Your task to perform on an android device: open app "Google Sheets" (install if not already installed) Image 0: 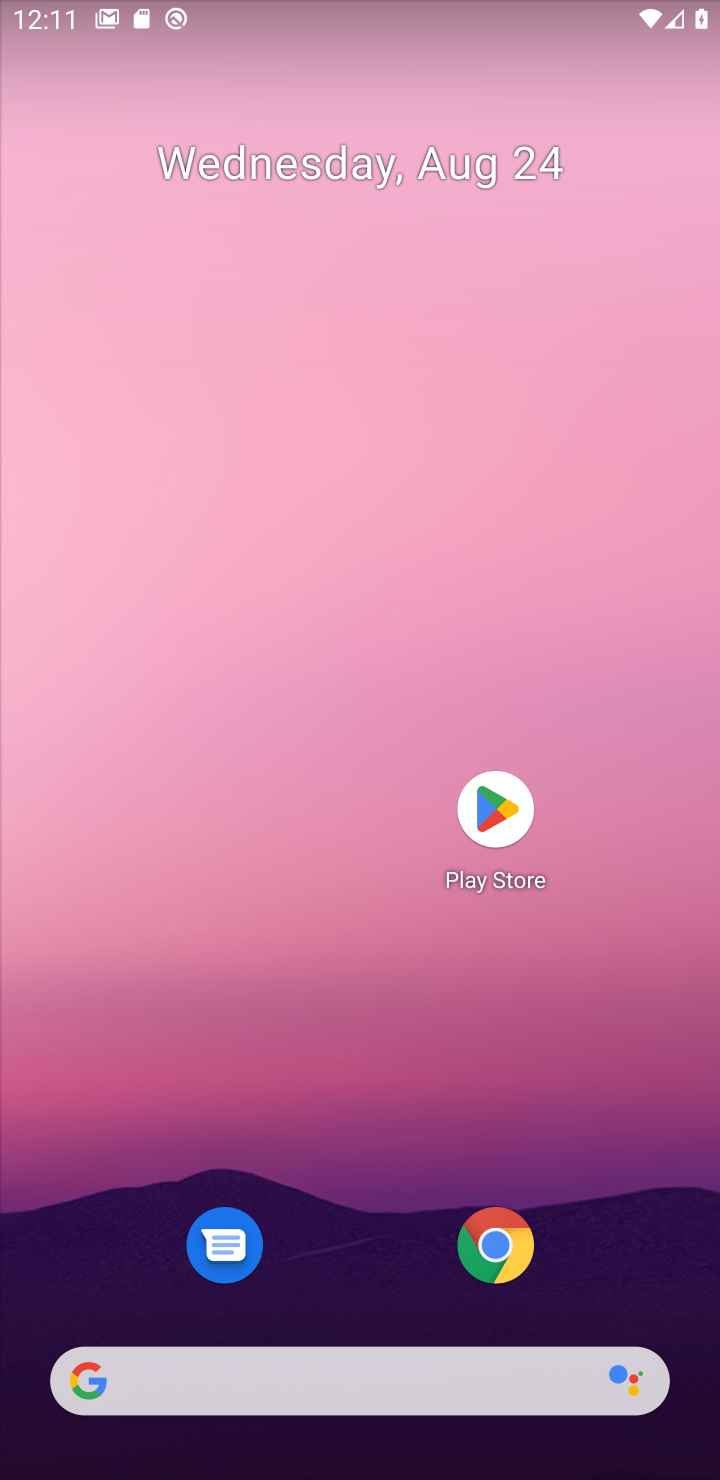
Step 0: click (496, 813)
Your task to perform on an android device: open app "Google Sheets" (install if not already installed) Image 1: 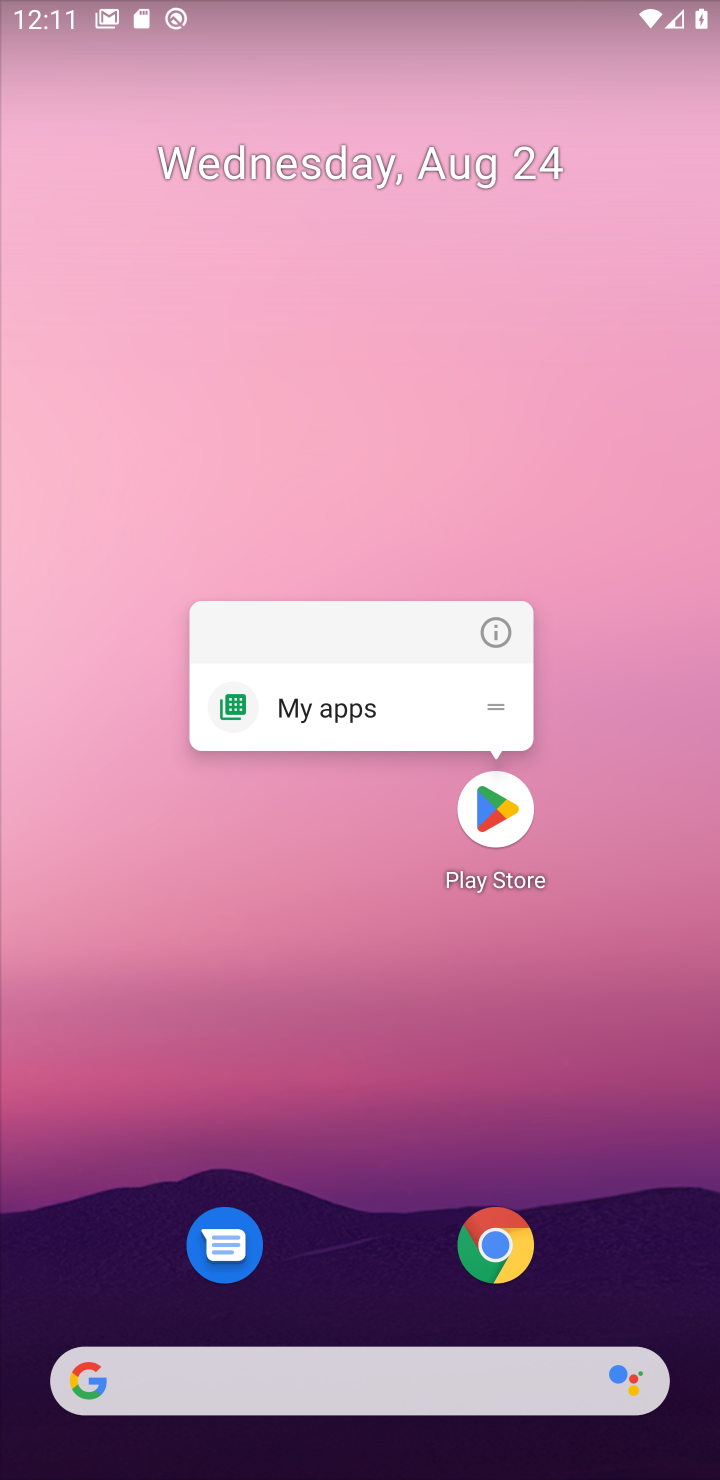
Step 1: click (500, 817)
Your task to perform on an android device: open app "Google Sheets" (install if not already installed) Image 2: 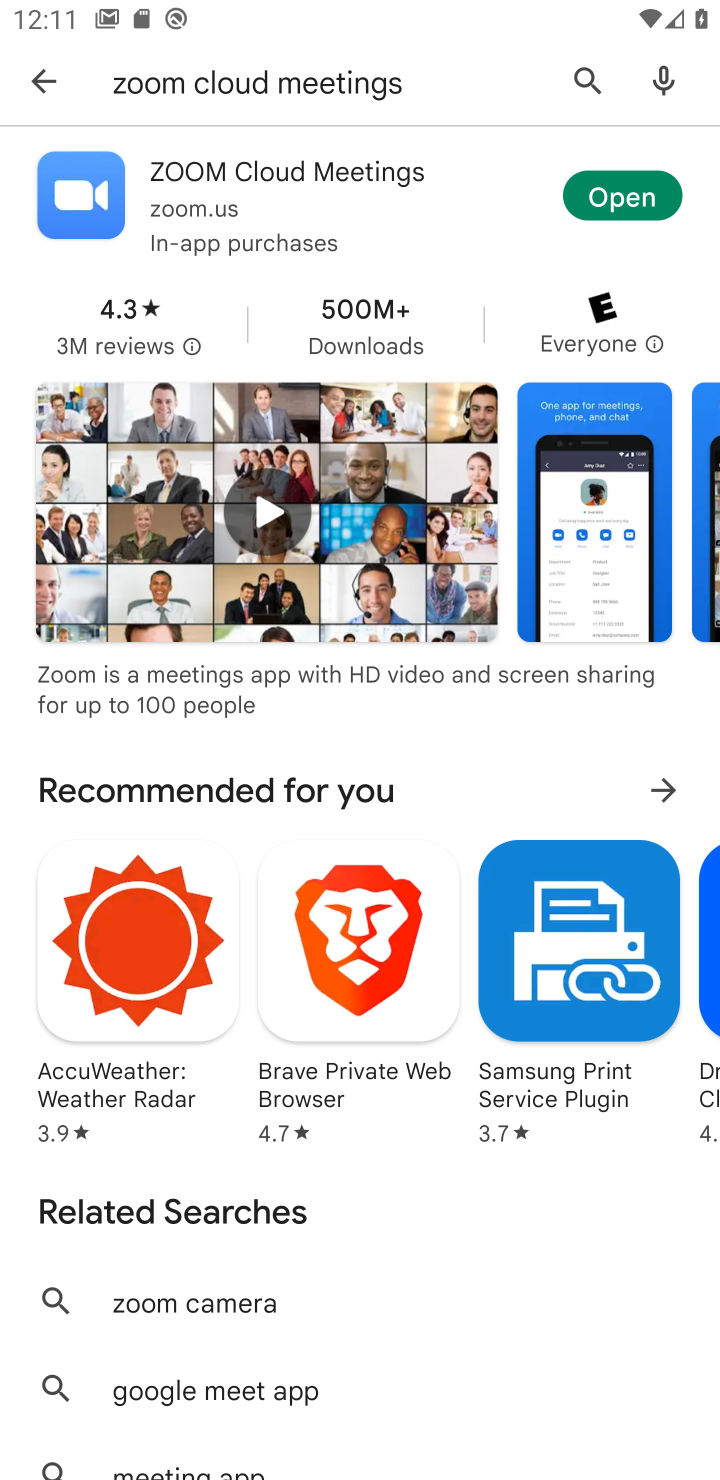
Step 2: click (580, 78)
Your task to perform on an android device: open app "Google Sheets" (install if not already installed) Image 3: 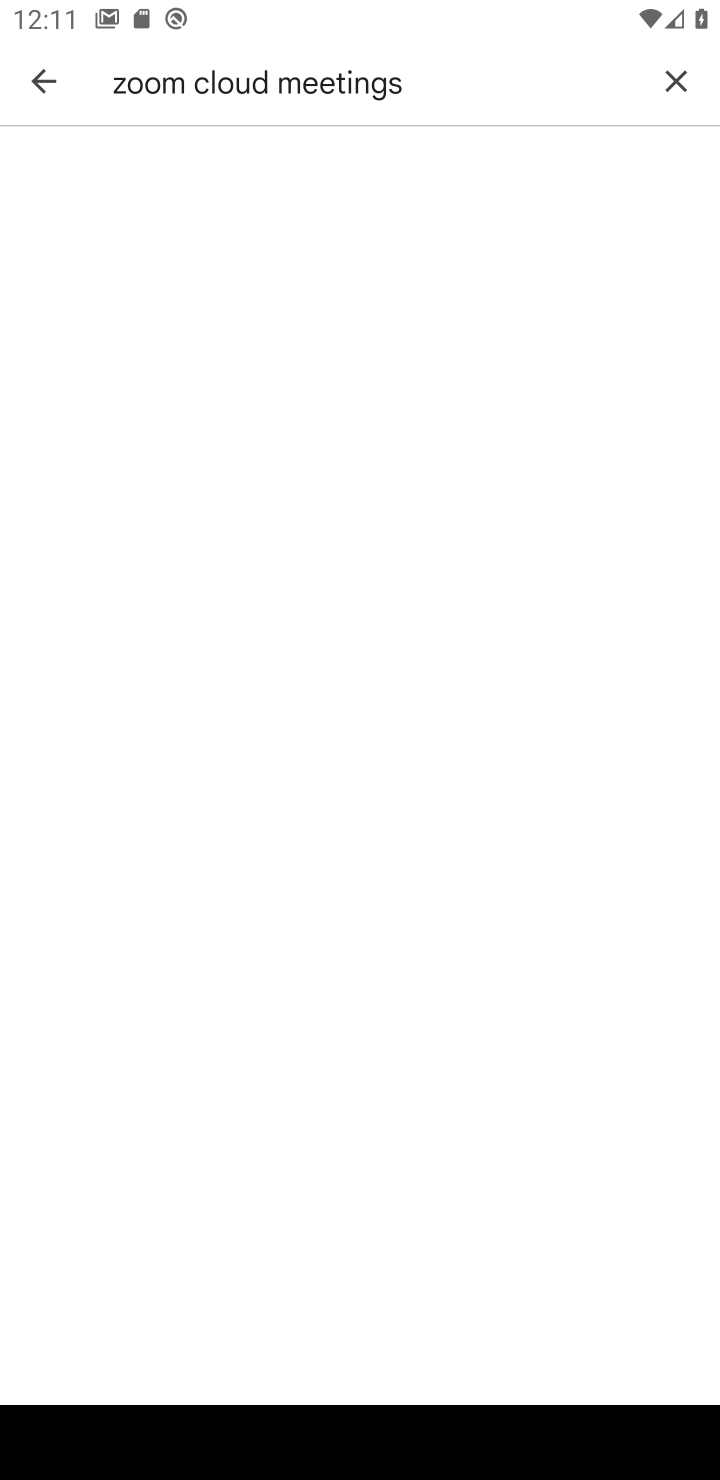
Step 3: click (666, 86)
Your task to perform on an android device: open app "Google Sheets" (install if not already installed) Image 4: 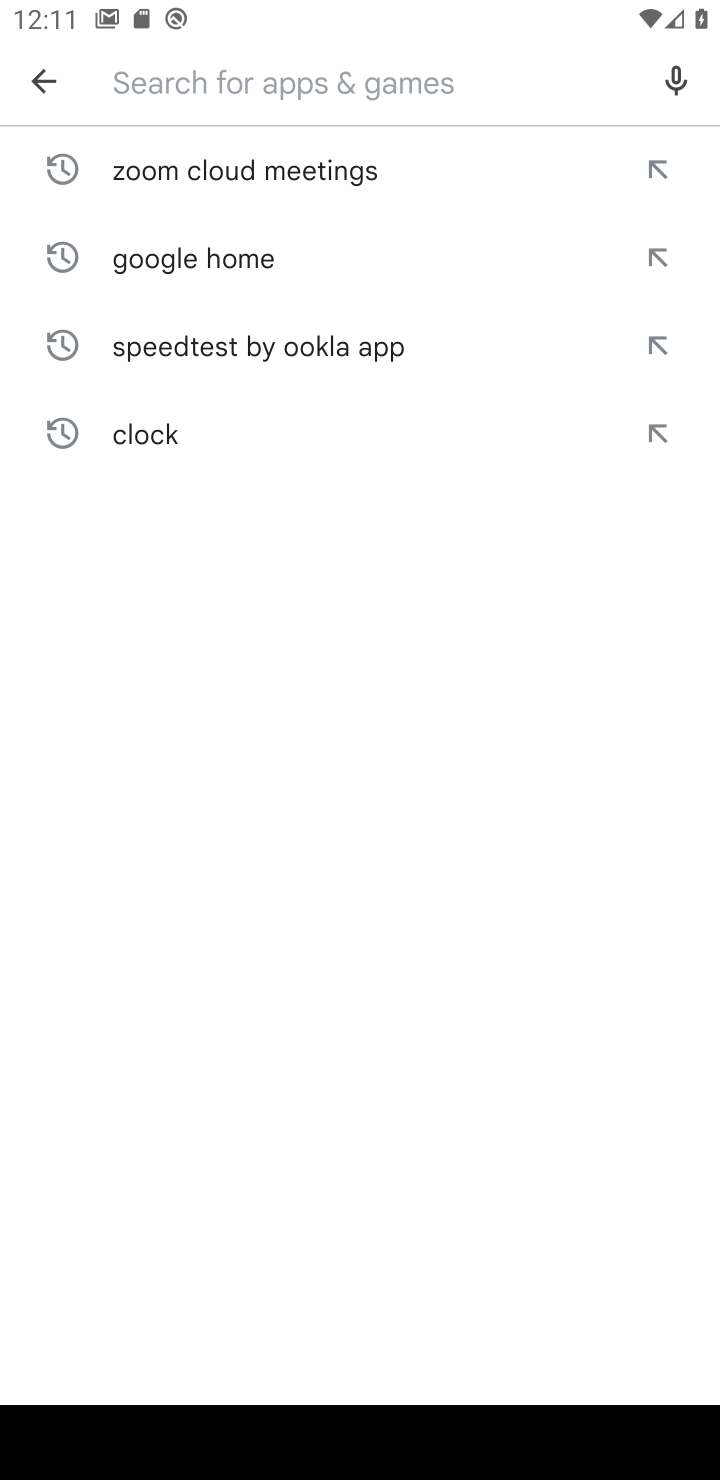
Step 4: type "Google Sheets"
Your task to perform on an android device: open app "Google Sheets" (install if not already installed) Image 5: 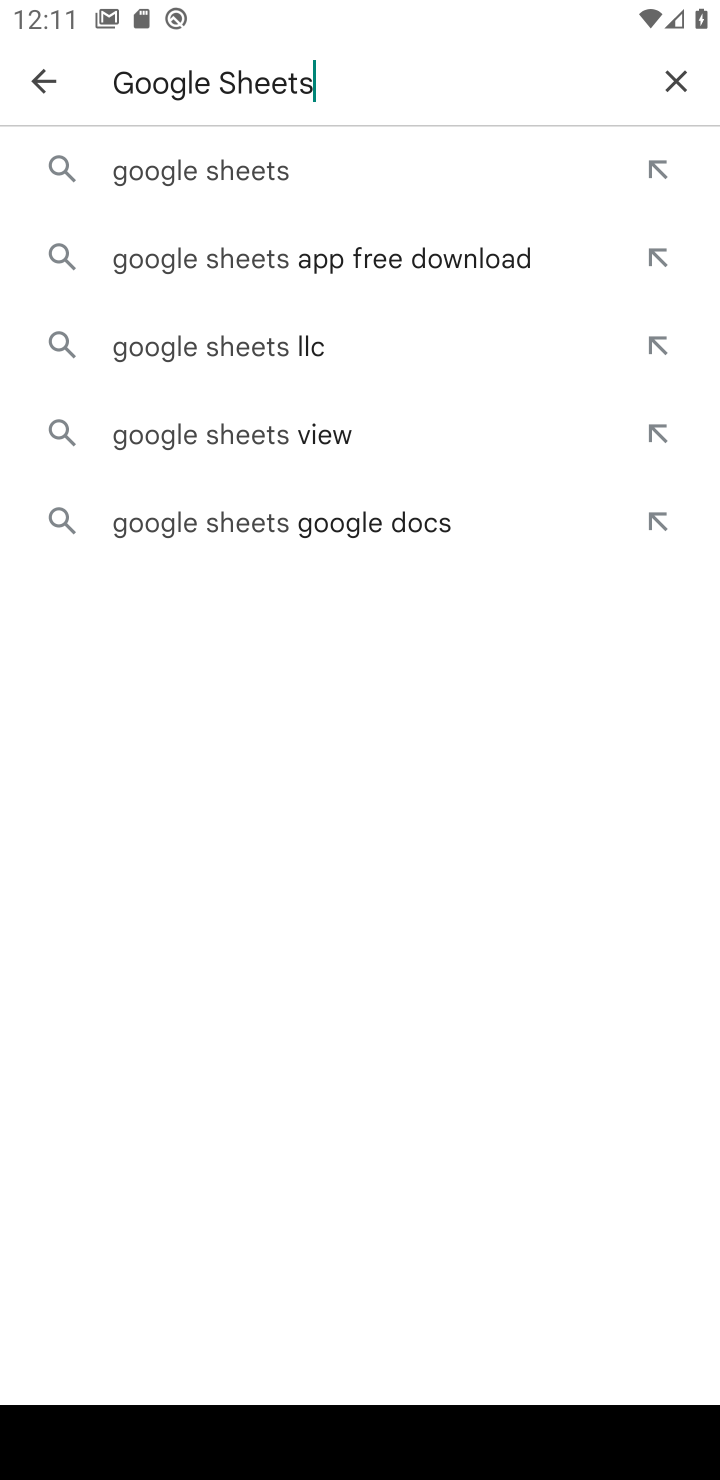
Step 5: click (220, 179)
Your task to perform on an android device: open app "Google Sheets" (install if not already installed) Image 6: 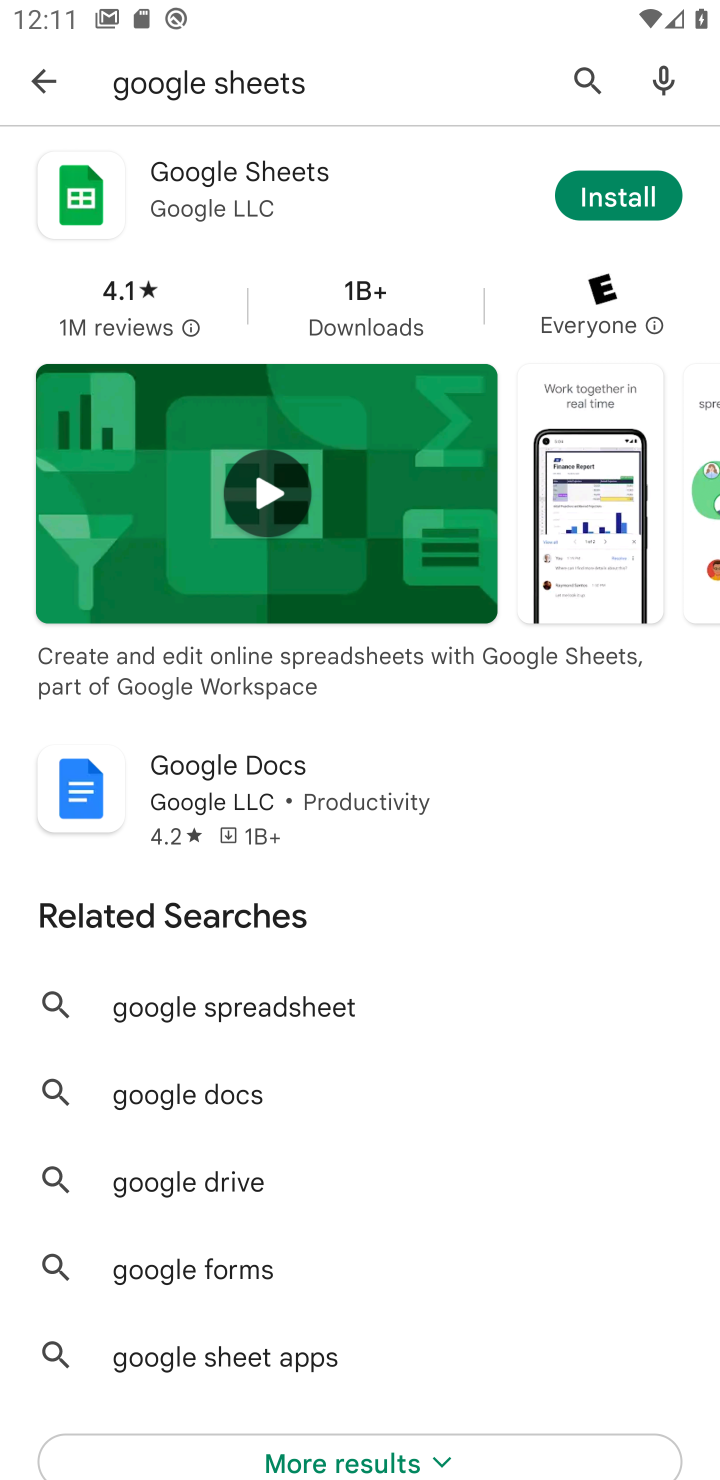
Step 6: click (647, 200)
Your task to perform on an android device: open app "Google Sheets" (install if not already installed) Image 7: 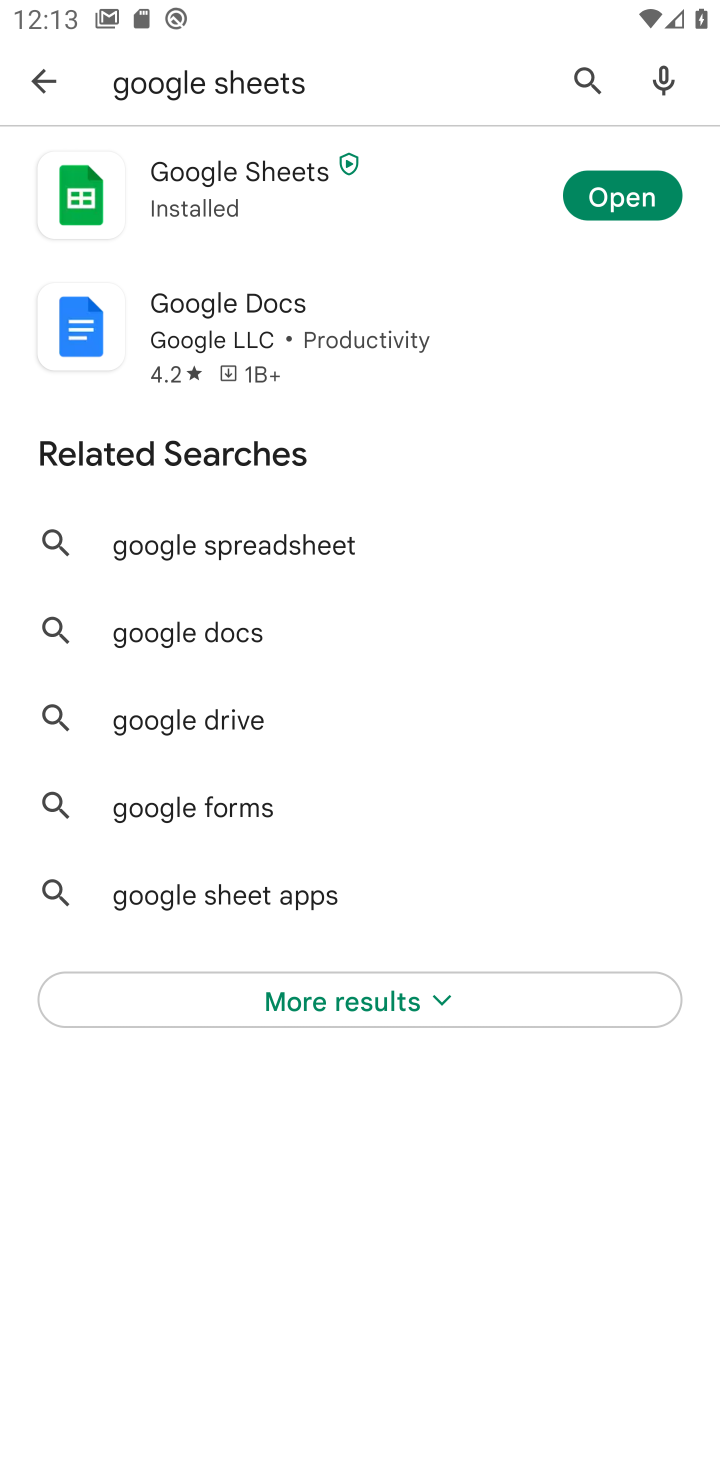
Step 7: click (639, 191)
Your task to perform on an android device: open app "Google Sheets" (install if not already installed) Image 8: 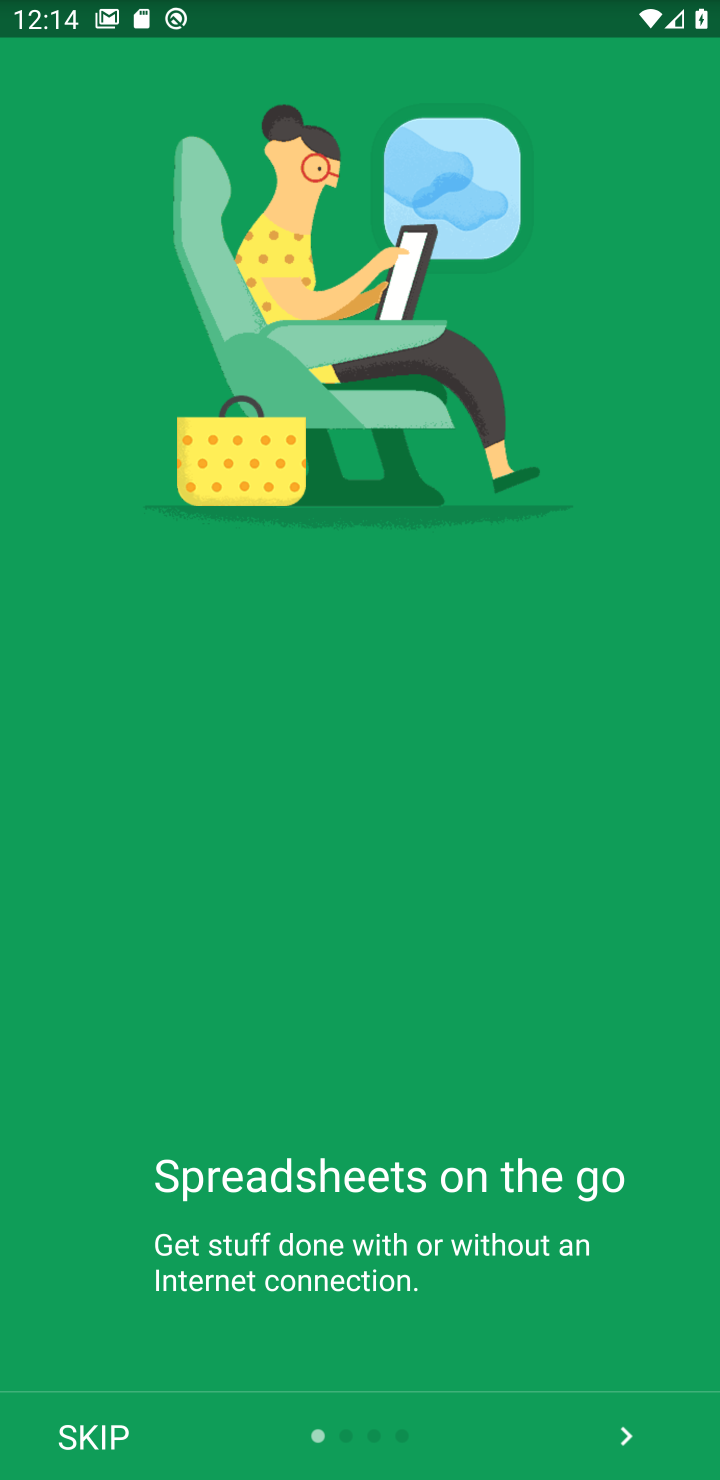
Step 8: task complete